Your task to perform on an android device: turn notification dots on Image 0: 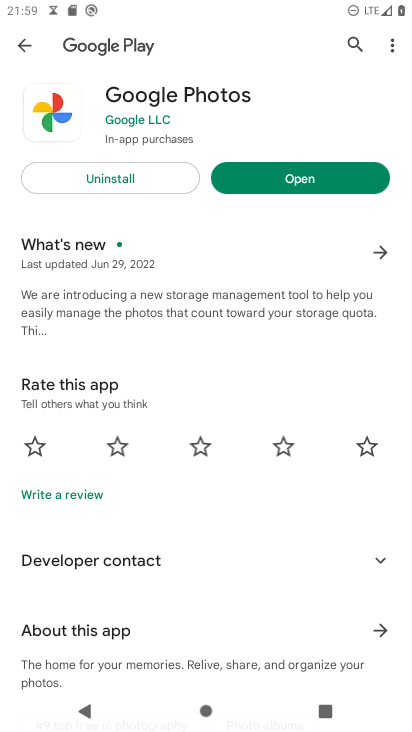
Step 0: press home button
Your task to perform on an android device: turn notification dots on Image 1: 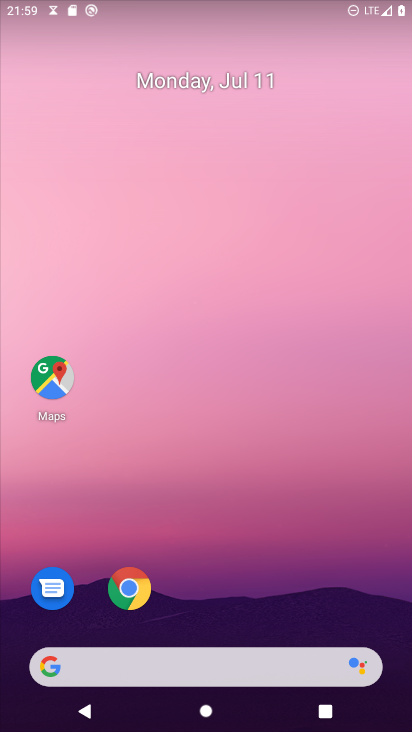
Step 1: drag from (284, 610) to (273, 155)
Your task to perform on an android device: turn notification dots on Image 2: 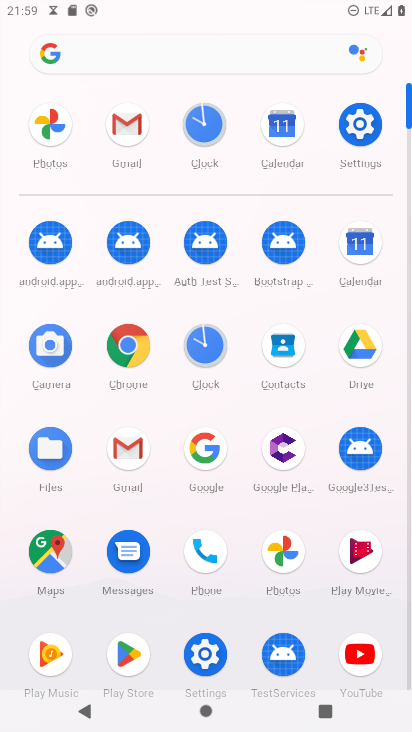
Step 2: click (367, 136)
Your task to perform on an android device: turn notification dots on Image 3: 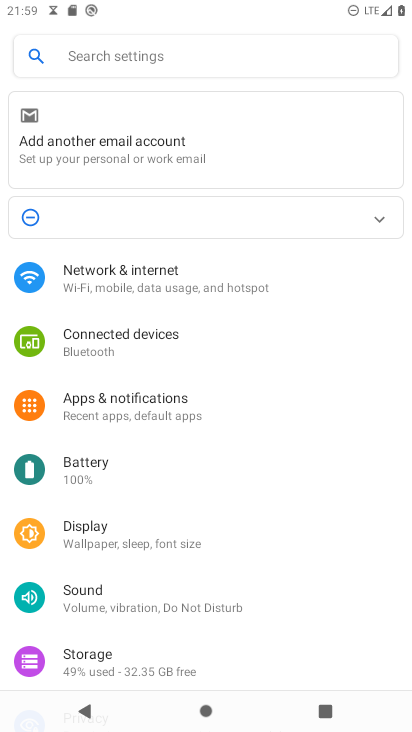
Step 3: click (160, 405)
Your task to perform on an android device: turn notification dots on Image 4: 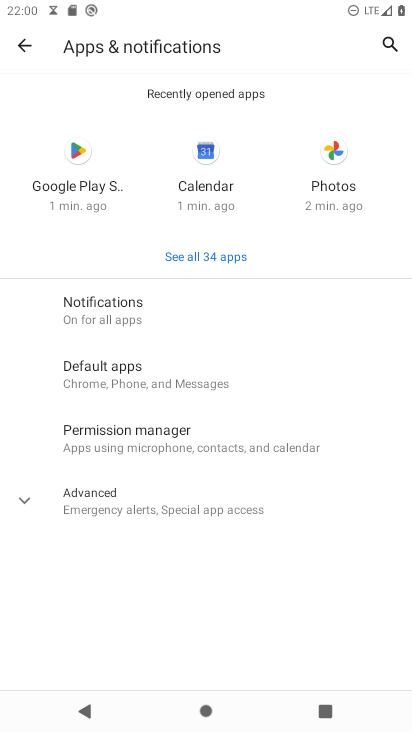
Step 4: click (122, 330)
Your task to perform on an android device: turn notification dots on Image 5: 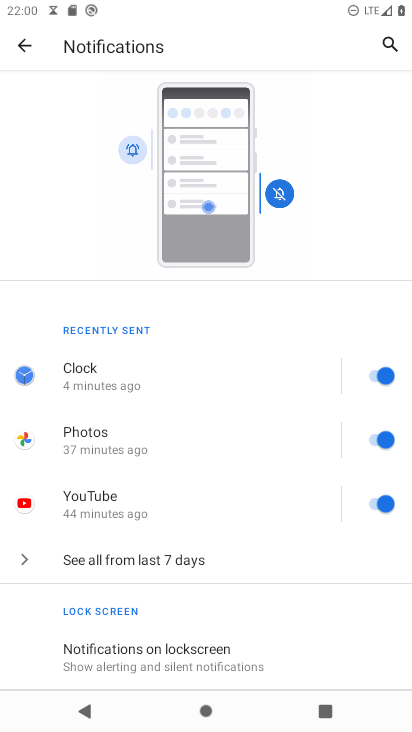
Step 5: drag from (244, 625) to (285, 70)
Your task to perform on an android device: turn notification dots on Image 6: 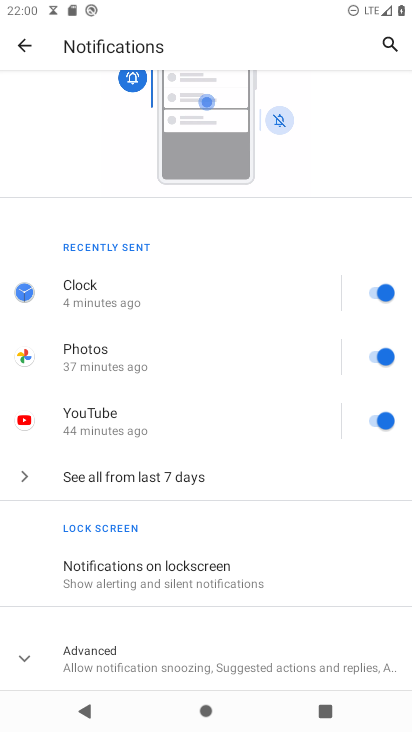
Step 6: click (89, 666)
Your task to perform on an android device: turn notification dots on Image 7: 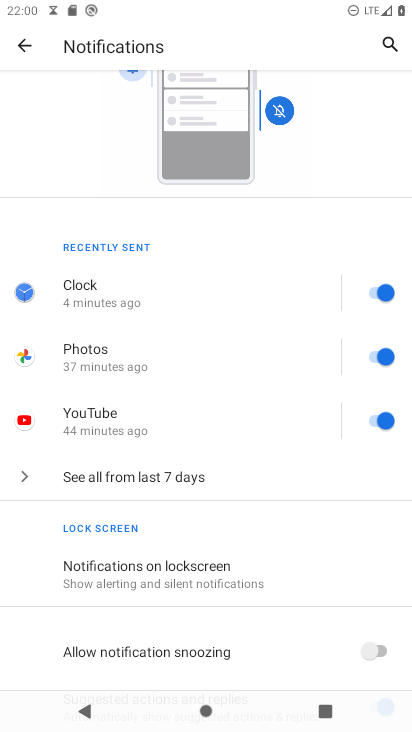
Step 7: drag from (263, 618) to (277, 334)
Your task to perform on an android device: turn notification dots on Image 8: 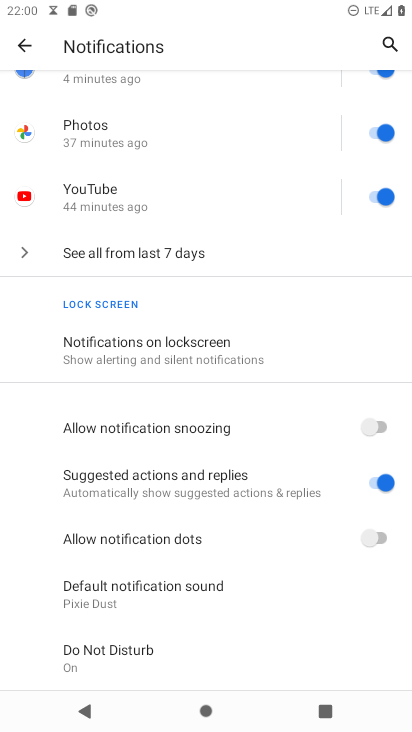
Step 8: click (368, 537)
Your task to perform on an android device: turn notification dots on Image 9: 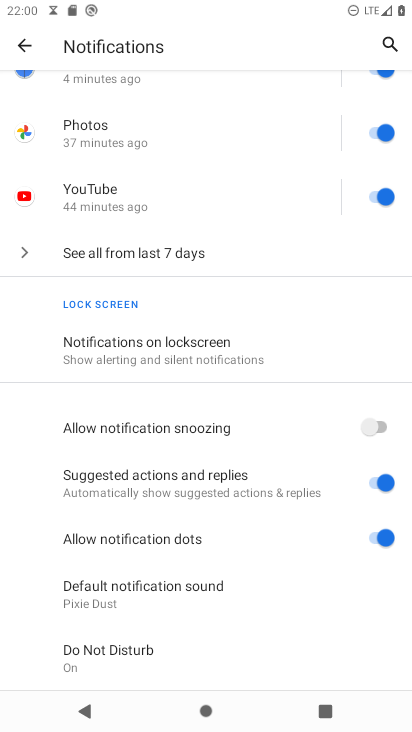
Step 9: task complete